Your task to perform on an android device: change alarm snooze length Image 0: 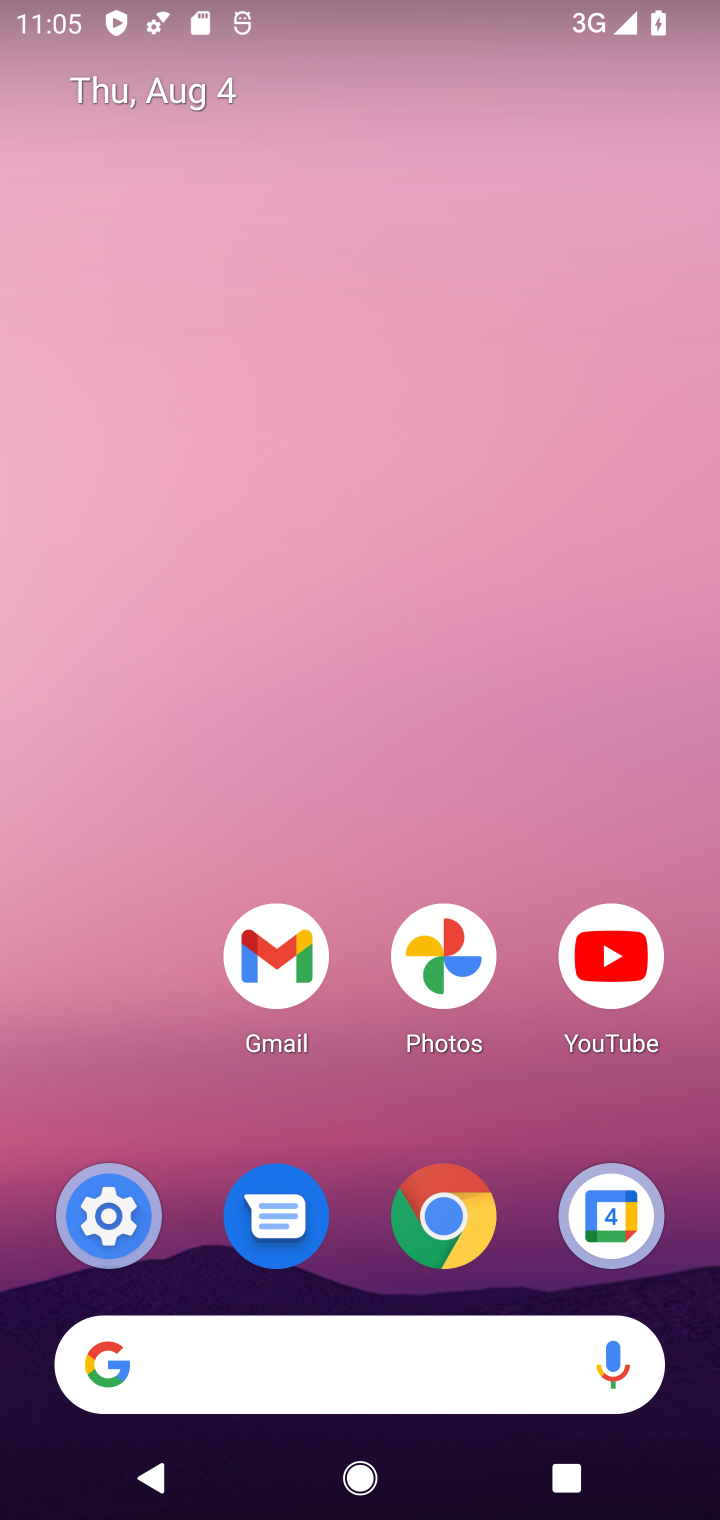
Step 0: drag from (181, 1042) to (261, 0)
Your task to perform on an android device: change alarm snooze length Image 1: 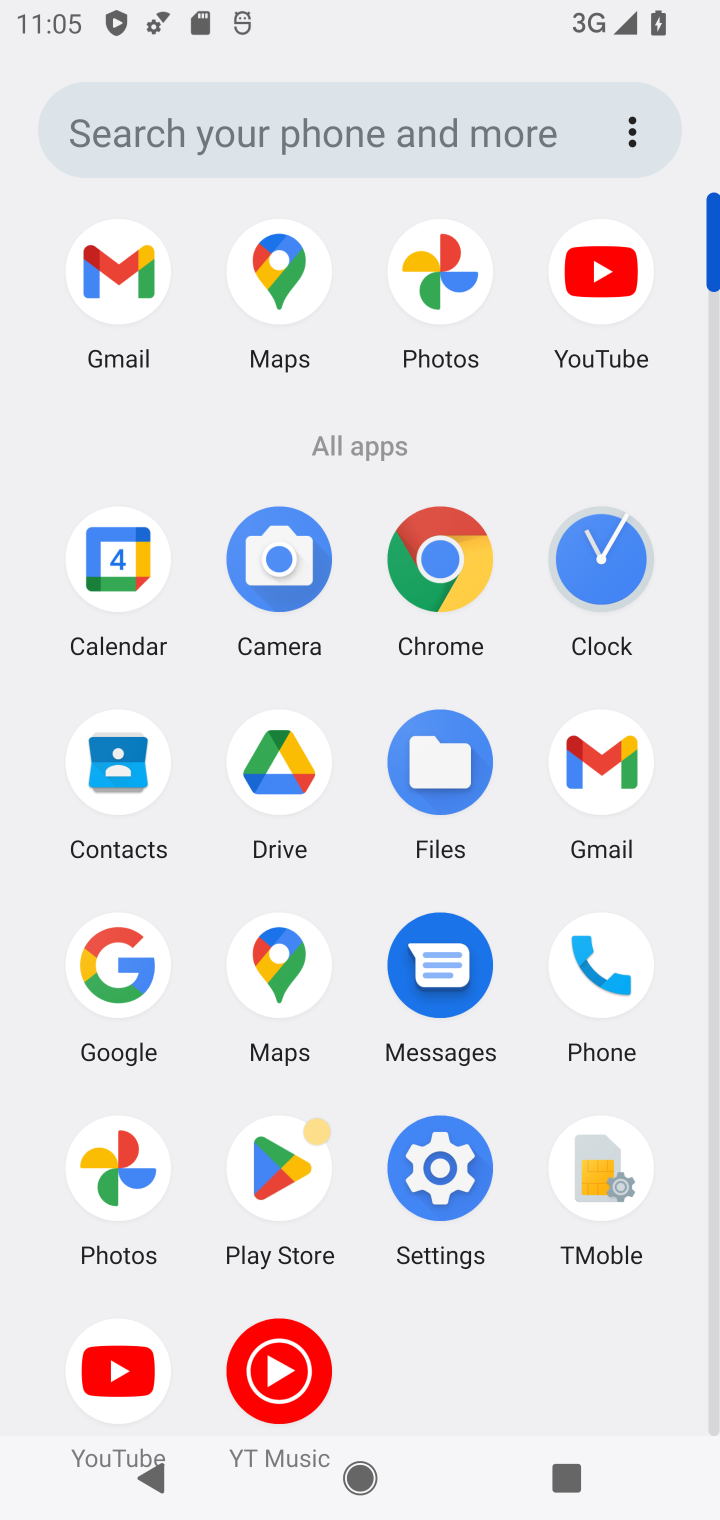
Step 1: click (601, 572)
Your task to perform on an android device: change alarm snooze length Image 2: 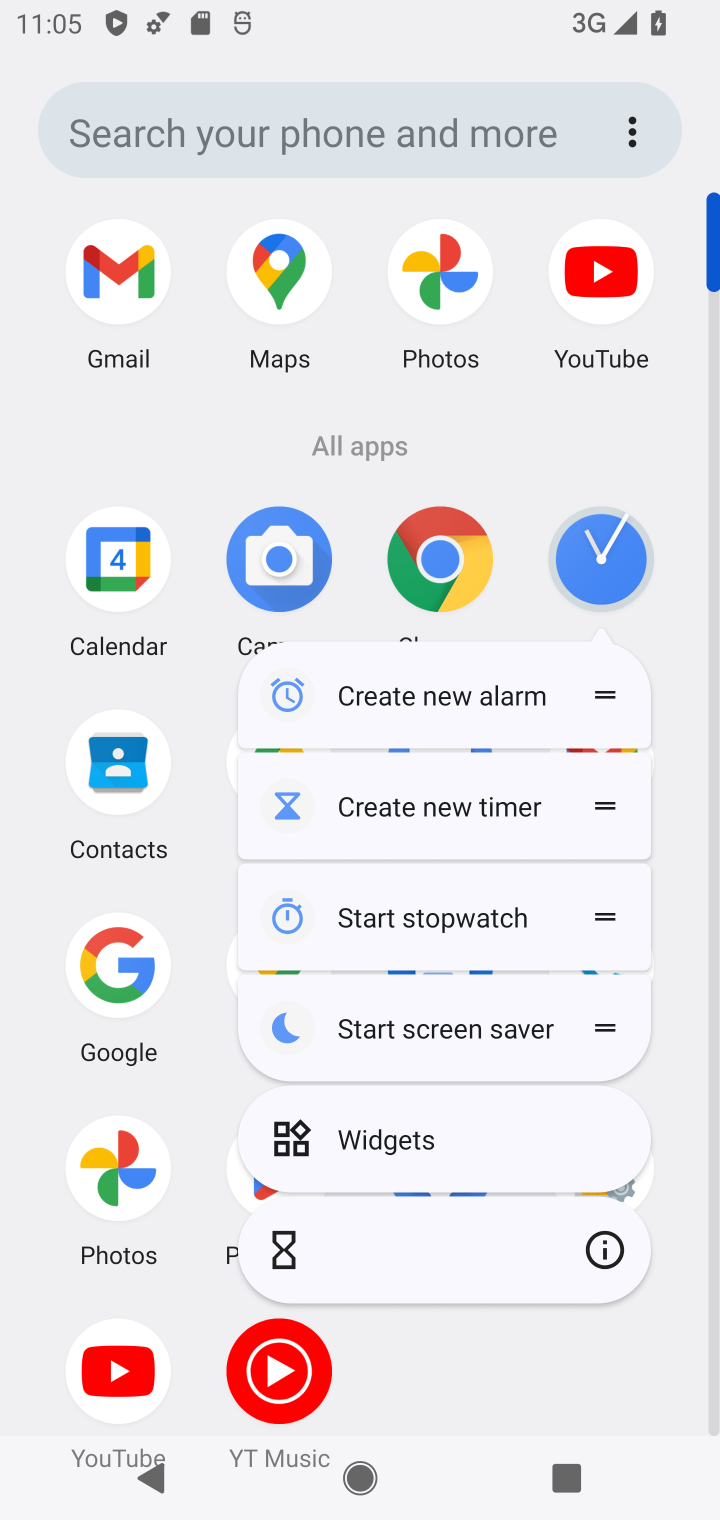
Step 2: click (601, 575)
Your task to perform on an android device: change alarm snooze length Image 3: 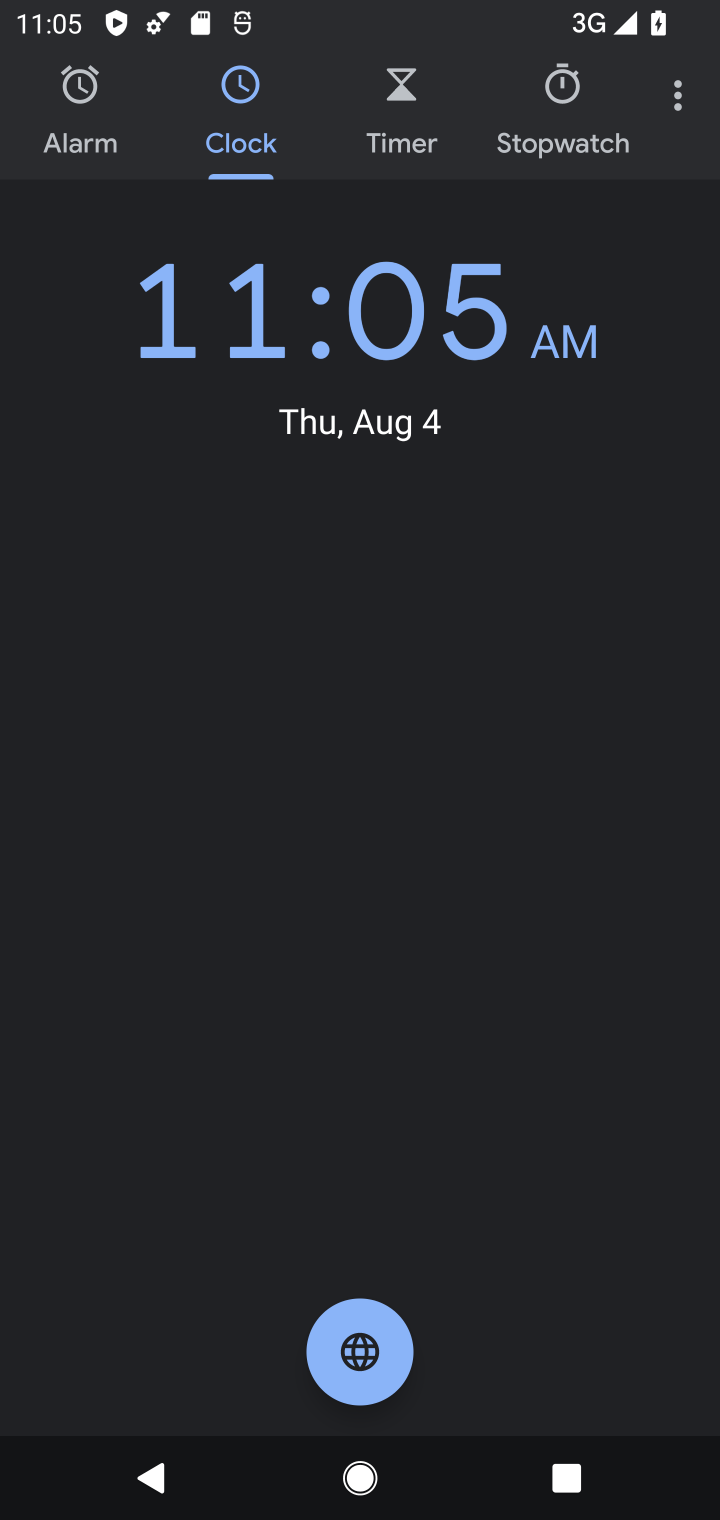
Step 3: click (689, 103)
Your task to perform on an android device: change alarm snooze length Image 4: 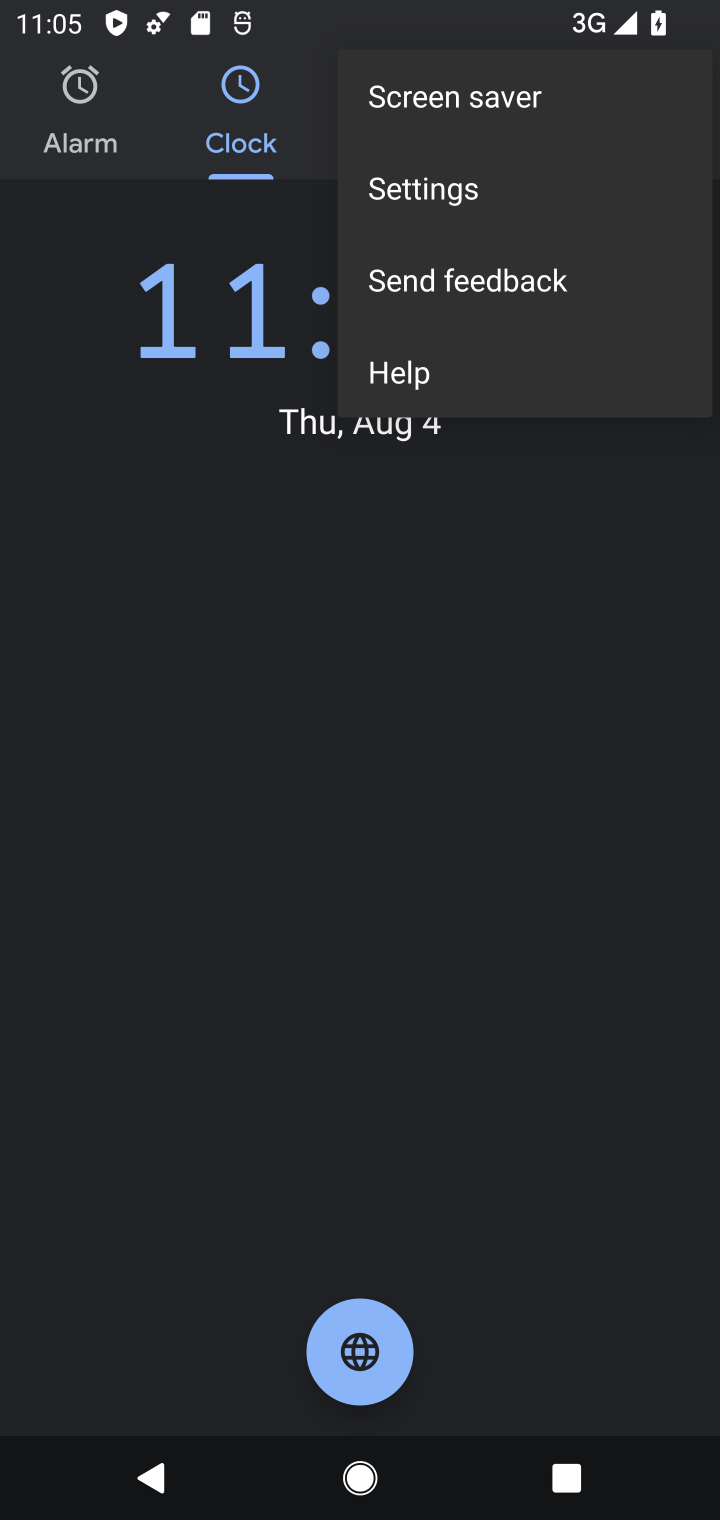
Step 4: click (518, 192)
Your task to perform on an android device: change alarm snooze length Image 5: 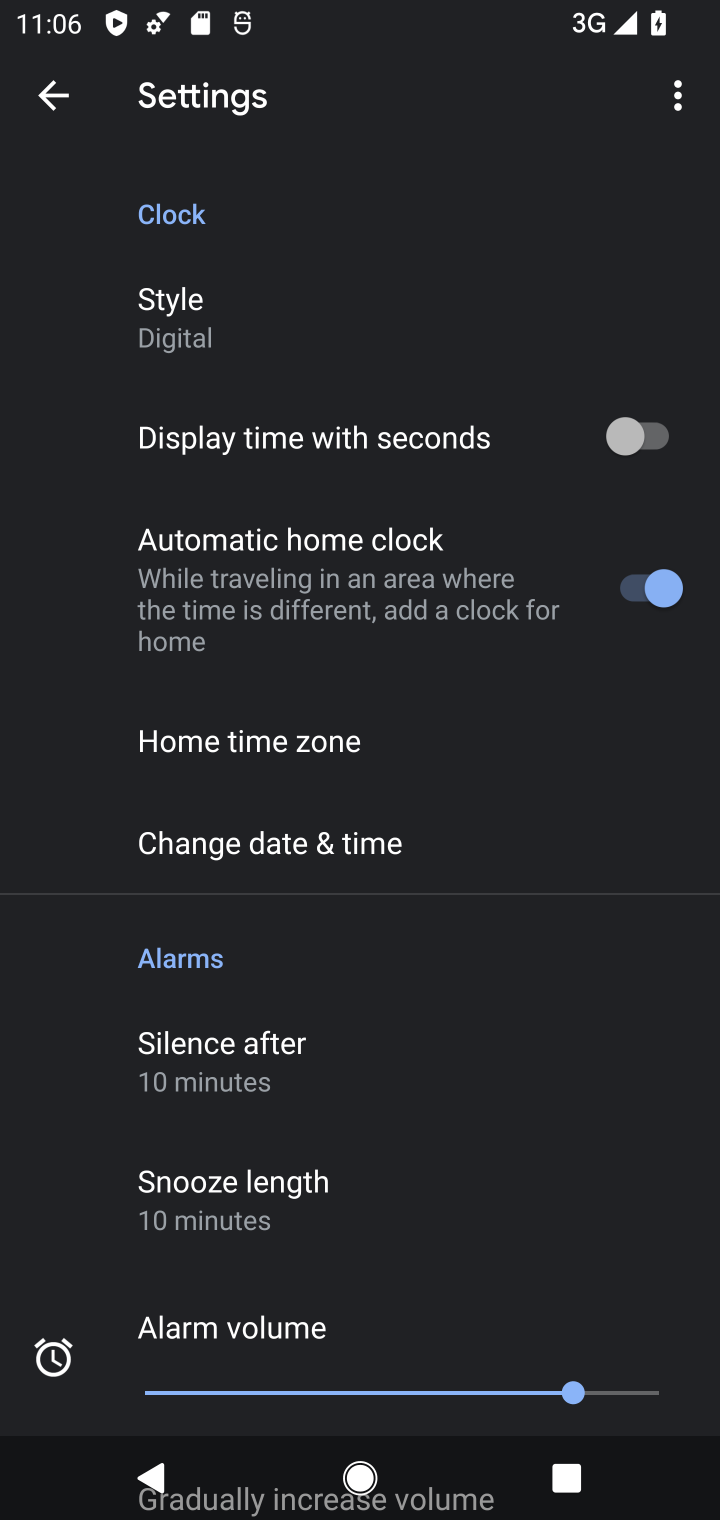
Step 5: click (320, 1197)
Your task to perform on an android device: change alarm snooze length Image 6: 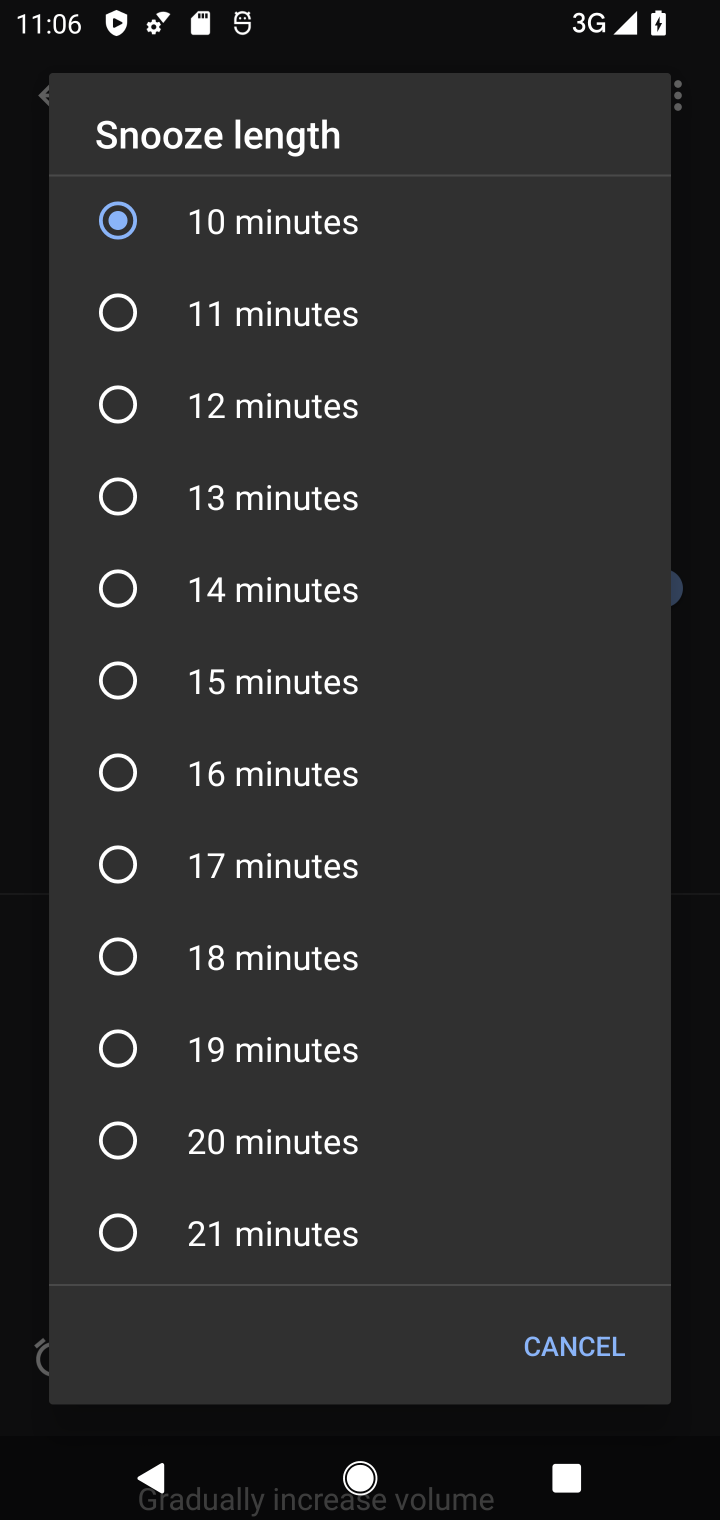
Step 6: click (129, 318)
Your task to perform on an android device: change alarm snooze length Image 7: 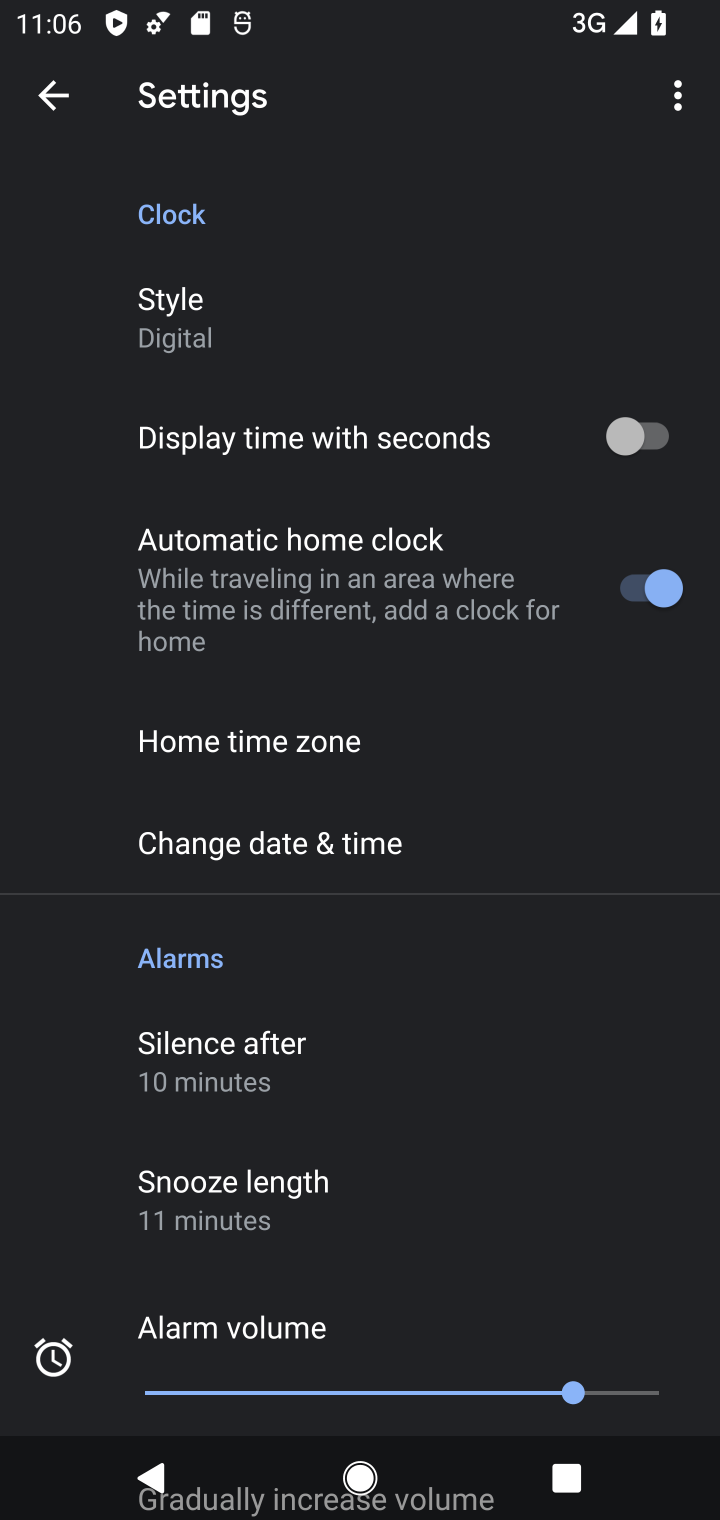
Step 7: task complete